Your task to perform on an android device: Turn off the flashlight Image 0: 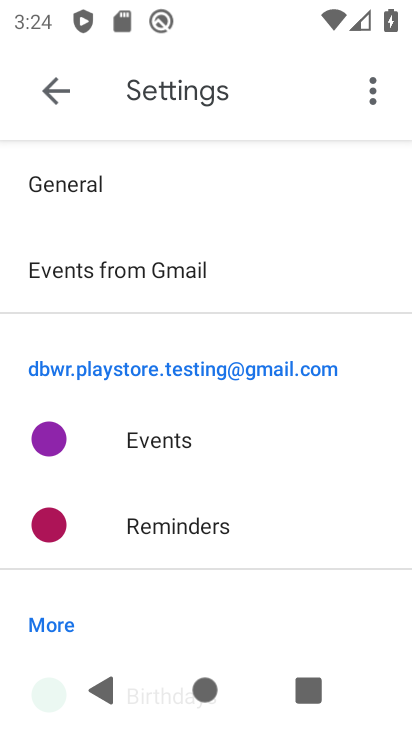
Step 0: drag from (193, 295) to (228, 554)
Your task to perform on an android device: Turn off the flashlight Image 1: 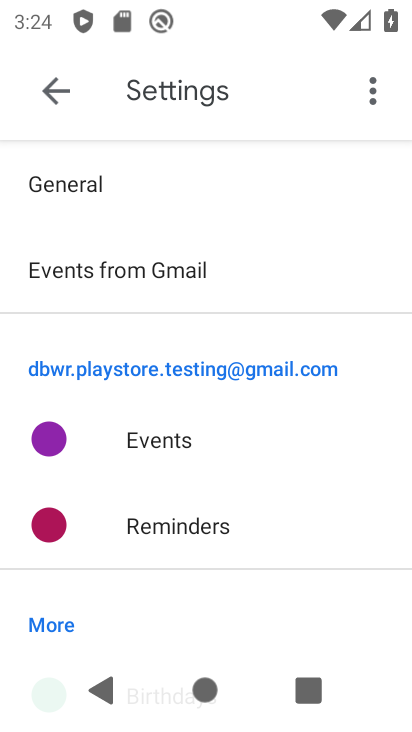
Step 1: drag from (223, 5) to (252, 657)
Your task to perform on an android device: Turn off the flashlight Image 2: 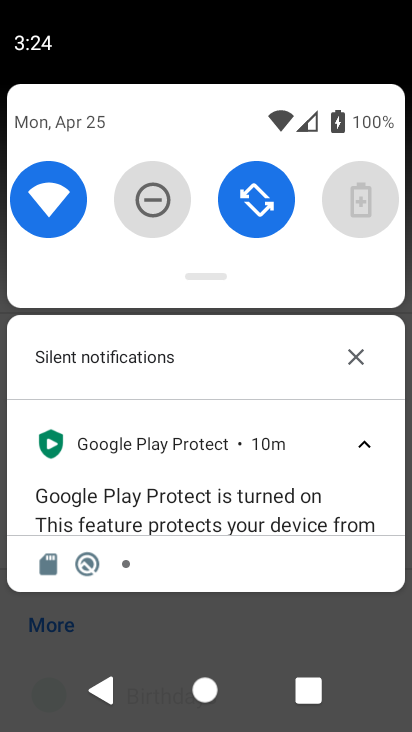
Step 2: drag from (170, 119) to (222, 716)
Your task to perform on an android device: Turn off the flashlight Image 3: 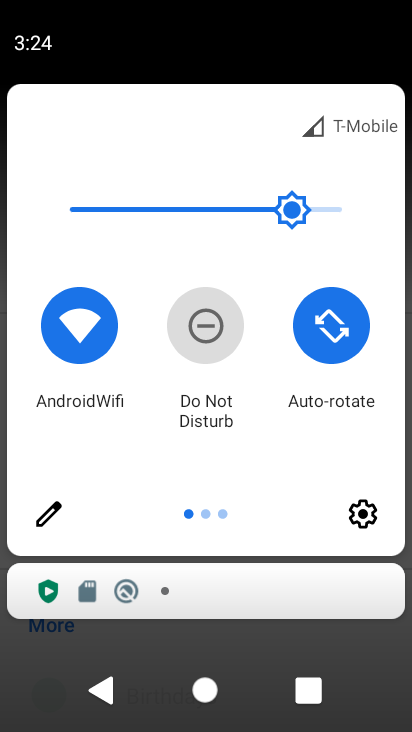
Step 3: click (358, 529)
Your task to perform on an android device: Turn off the flashlight Image 4: 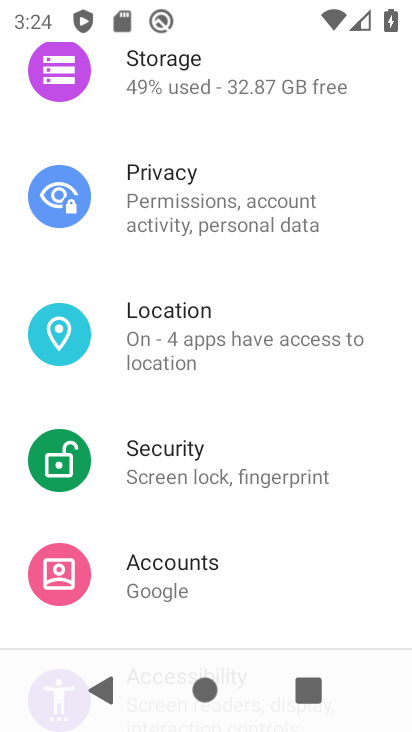
Step 4: task complete